Your task to perform on an android device: turn on sleep mode Image 0: 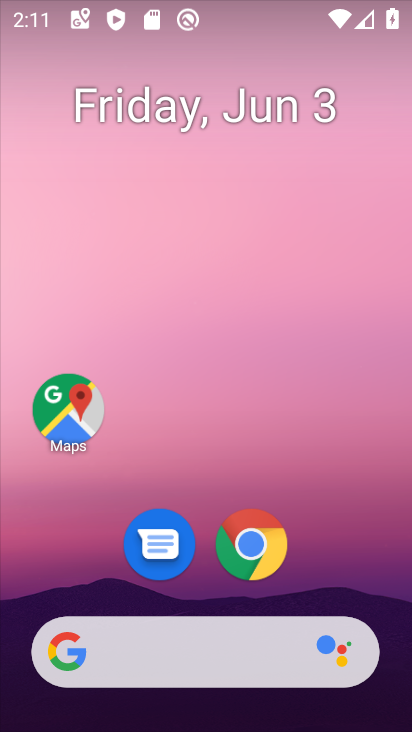
Step 0: drag from (334, 490) to (327, 196)
Your task to perform on an android device: turn on sleep mode Image 1: 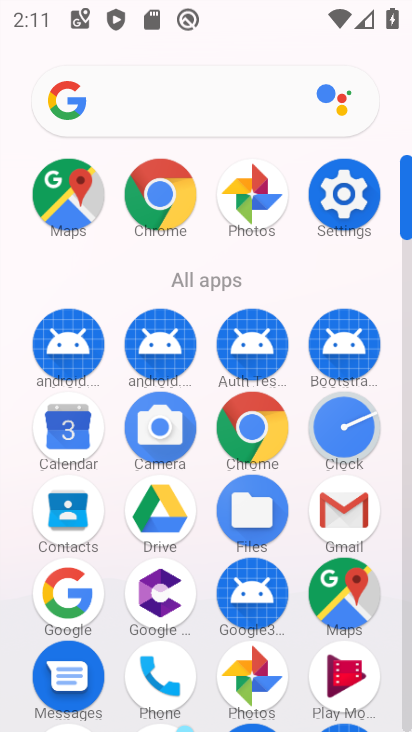
Step 1: click (353, 221)
Your task to perform on an android device: turn on sleep mode Image 2: 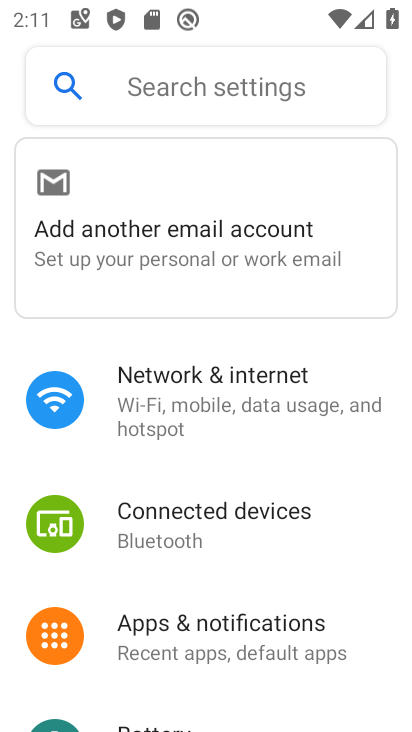
Step 2: click (241, 109)
Your task to perform on an android device: turn on sleep mode Image 3: 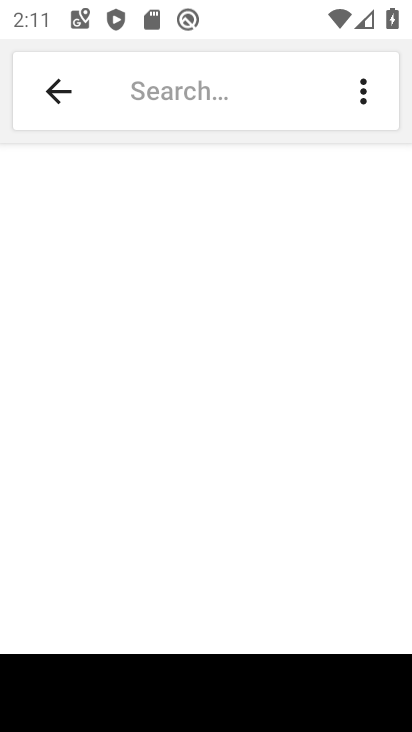
Step 3: type "sleep mode"
Your task to perform on an android device: turn on sleep mode Image 4: 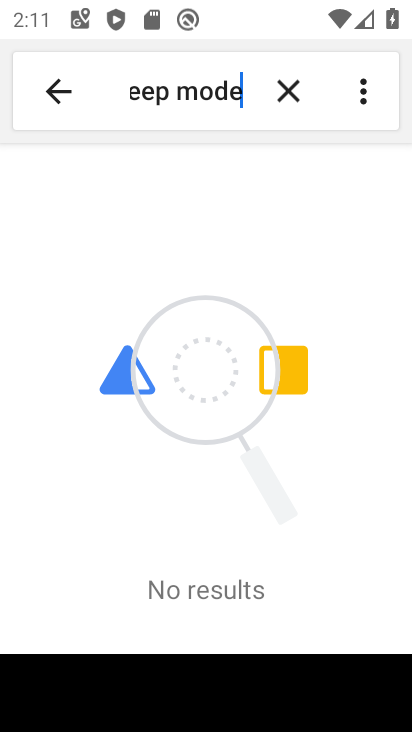
Step 4: task complete